Your task to perform on an android device: Search for a new lawnmower on Lowes. Image 0: 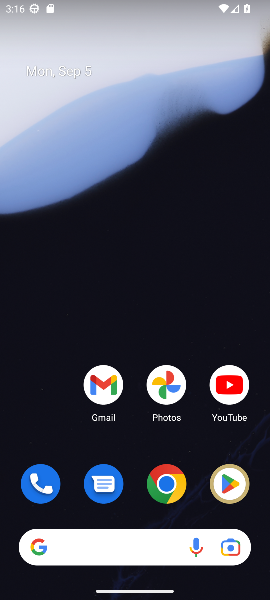
Step 0: click (163, 484)
Your task to perform on an android device: Search for a new lawnmower on Lowes. Image 1: 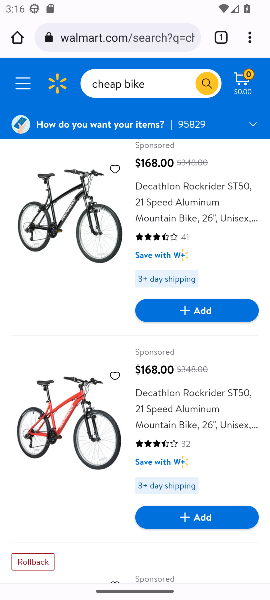
Step 1: click (171, 37)
Your task to perform on an android device: Search for a new lawnmower on Lowes. Image 2: 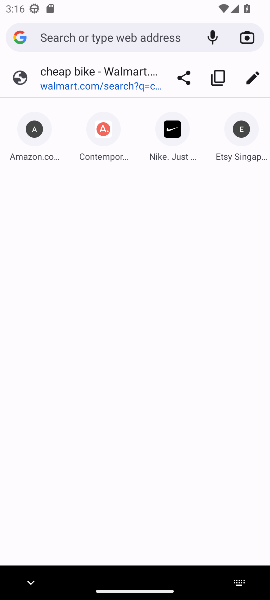
Step 2: type "Lowes"
Your task to perform on an android device: Search for a new lawnmower on Lowes. Image 3: 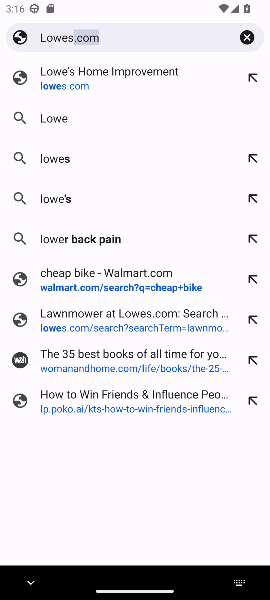
Step 3: press enter
Your task to perform on an android device: Search for a new lawnmower on Lowes. Image 4: 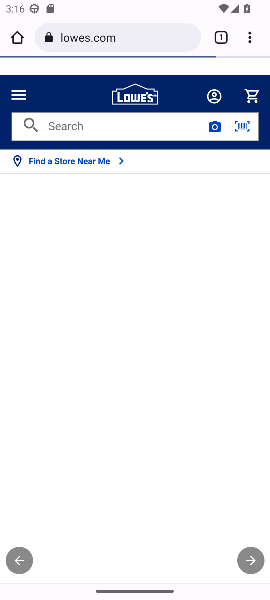
Step 4: click (138, 134)
Your task to perform on an android device: Search for a new lawnmower on Lowes. Image 5: 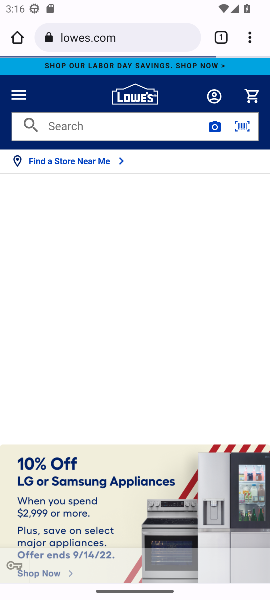
Step 5: click (138, 131)
Your task to perform on an android device: Search for a new lawnmower on Lowes. Image 6: 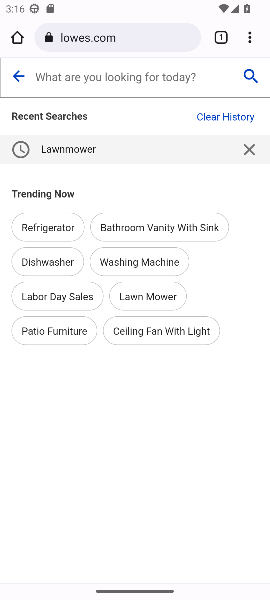
Step 6: type "new lawnmower"
Your task to perform on an android device: Search for a new lawnmower on Lowes. Image 7: 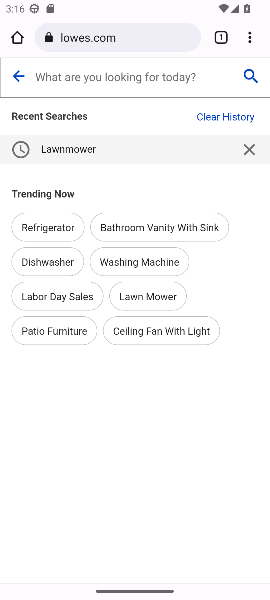
Step 7: press enter
Your task to perform on an android device: Search for a new lawnmower on Lowes. Image 8: 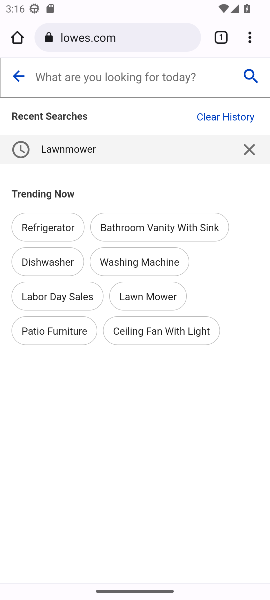
Step 8: click (80, 80)
Your task to perform on an android device: Search for a new lawnmower on Lowes. Image 9: 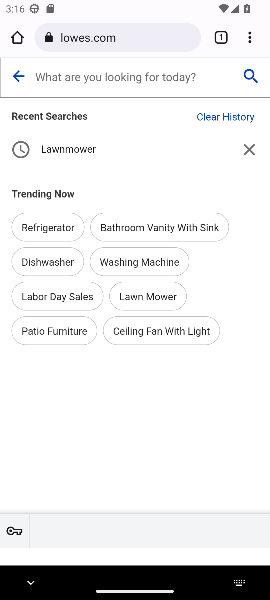
Step 9: type "new lawnmower"
Your task to perform on an android device: Search for a new lawnmower on Lowes. Image 10: 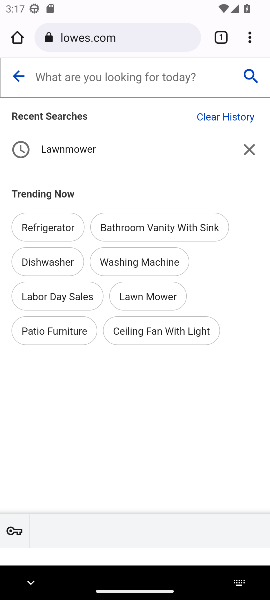
Step 10: press enter
Your task to perform on an android device: Search for a new lawnmower on Lowes. Image 11: 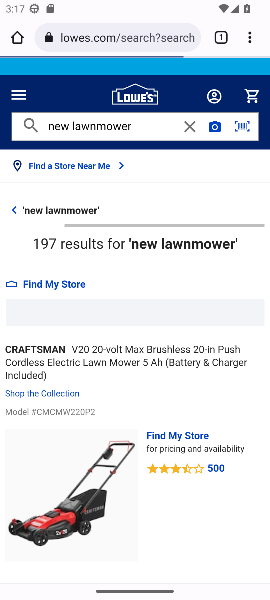
Step 11: task complete